Your task to perform on an android device: Open the calendar and show me this week's events Image 0: 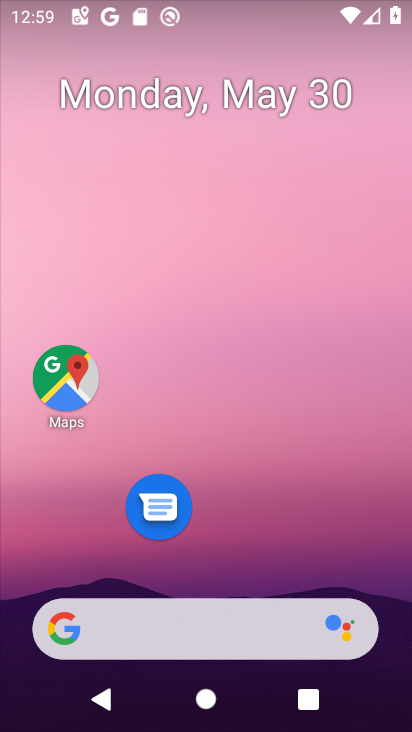
Step 0: drag from (288, 502) to (309, 128)
Your task to perform on an android device: Open the calendar and show me this week's events Image 1: 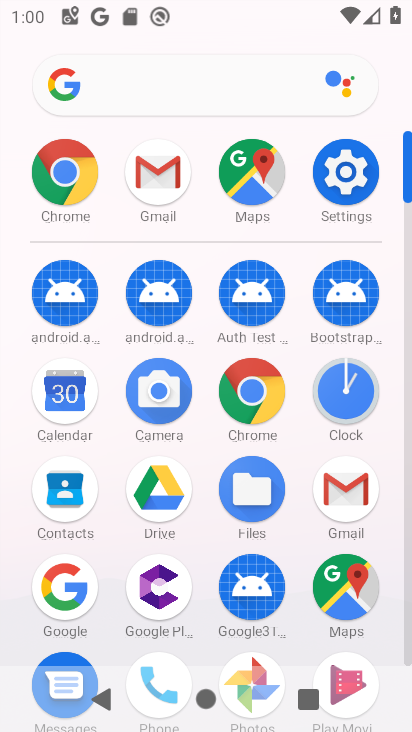
Step 1: click (68, 405)
Your task to perform on an android device: Open the calendar and show me this week's events Image 2: 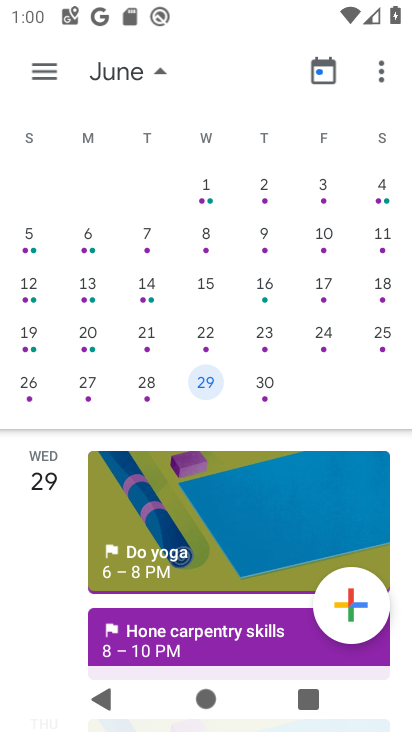
Step 2: click (40, 72)
Your task to perform on an android device: Open the calendar and show me this week's events Image 3: 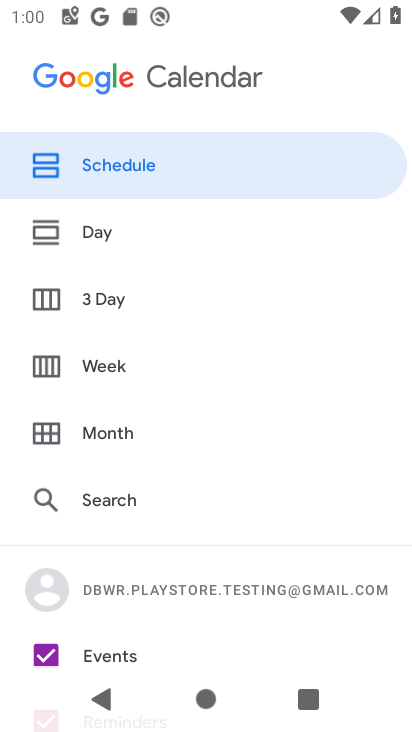
Step 3: click (178, 158)
Your task to perform on an android device: Open the calendar and show me this week's events Image 4: 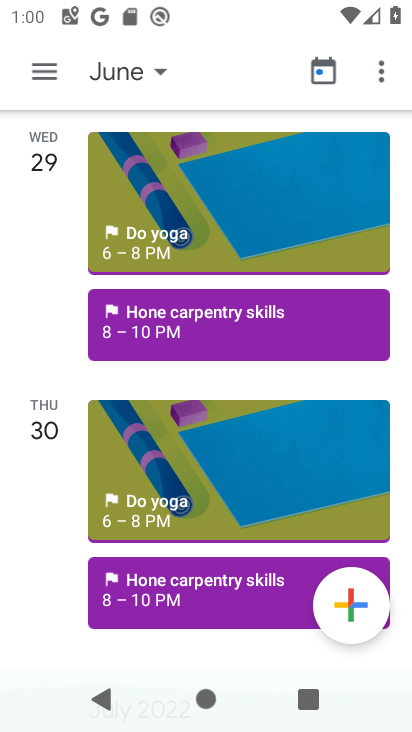
Step 4: task complete